Your task to perform on an android device: Open network settings Image 0: 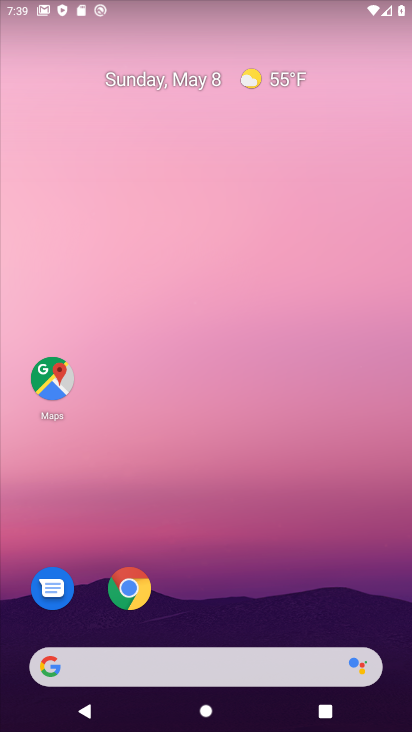
Step 0: drag from (334, 601) to (237, 79)
Your task to perform on an android device: Open network settings Image 1: 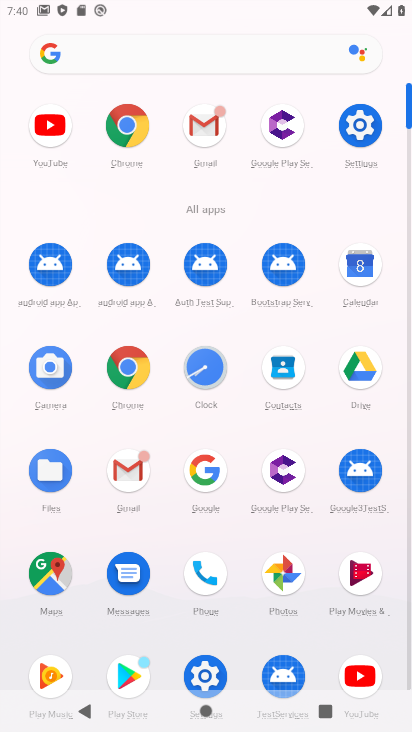
Step 1: click (196, 667)
Your task to perform on an android device: Open network settings Image 2: 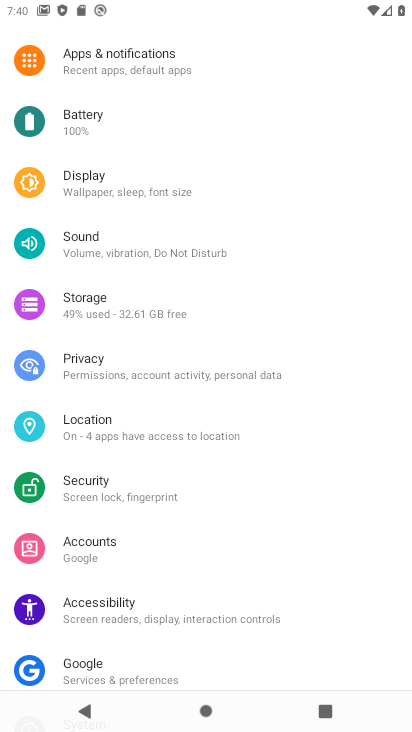
Step 2: drag from (191, 135) to (271, 586)
Your task to perform on an android device: Open network settings Image 3: 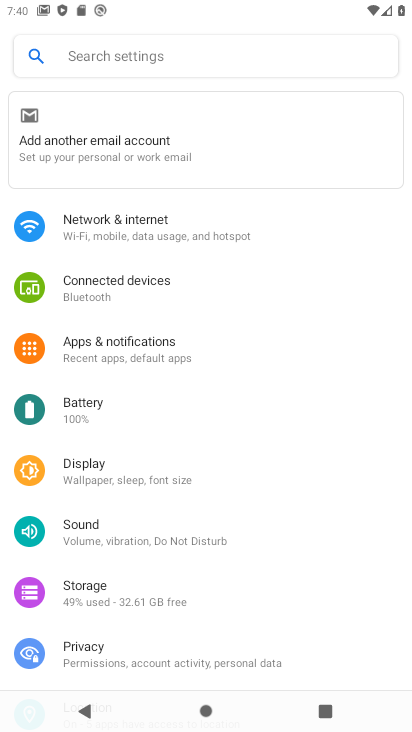
Step 3: click (169, 243)
Your task to perform on an android device: Open network settings Image 4: 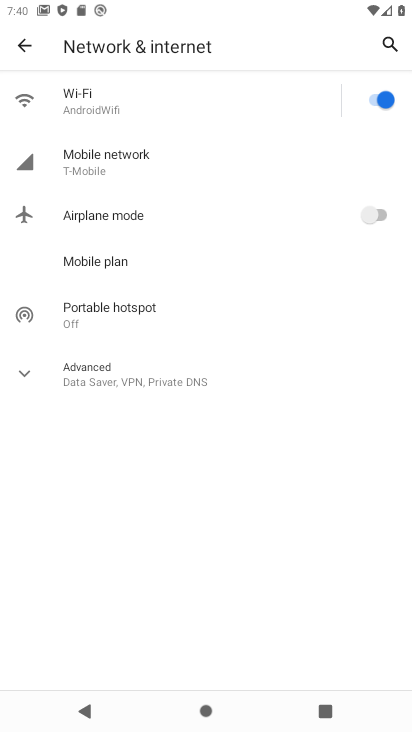
Step 4: task complete